Your task to perform on an android device: Set the phone to "Do not disturb". Image 0: 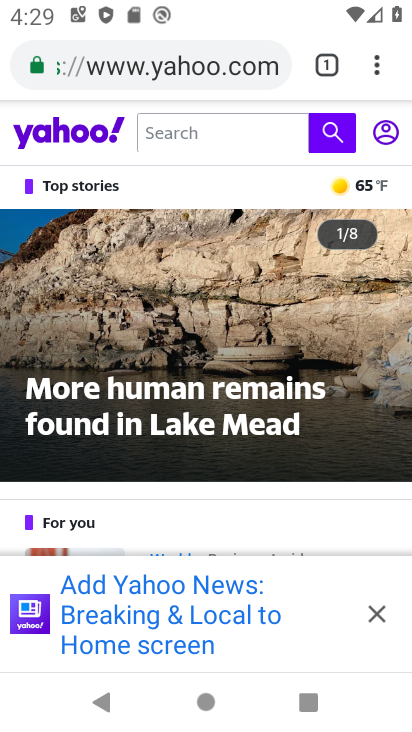
Step 0: drag from (218, 17) to (183, 607)
Your task to perform on an android device: Set the phone to "Do not disturb". Image 1: 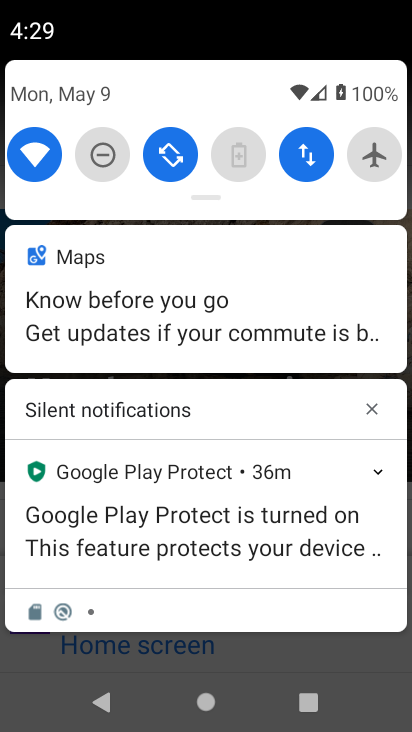
Step 1: click (100, 154)
Your task to perform on an android device: Set the phone to "Do not disturb". Image 2: 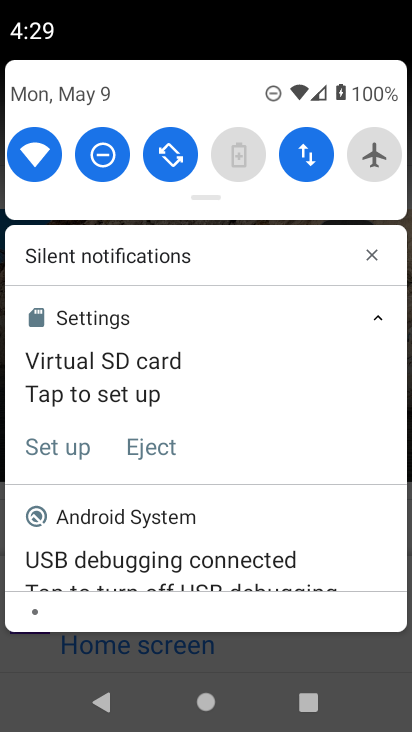
Step 2: task complete